Your task to perform on an android device: set default search engine in the chrome app Image 0: 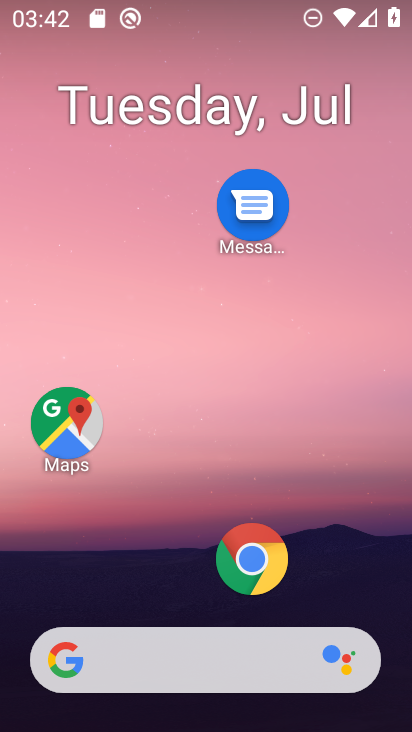
Step 0: click (253, 547)
Your task to perform on an android device: set default search engine in the chrome app Image 1: 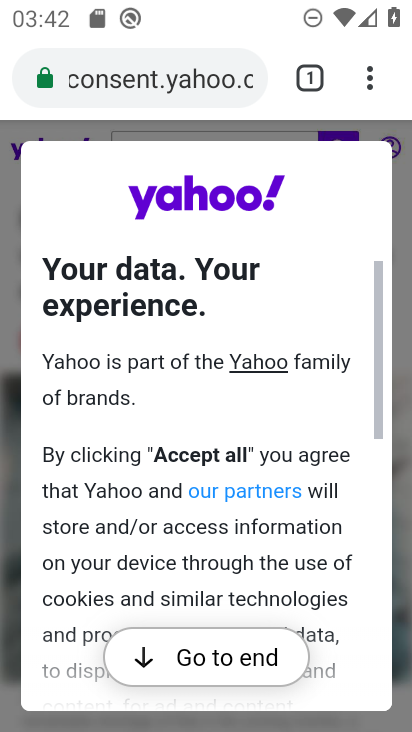
Step 1: click (363, 67)
Your task to perform on an android device: set default search engine in the chrome app Image 2: 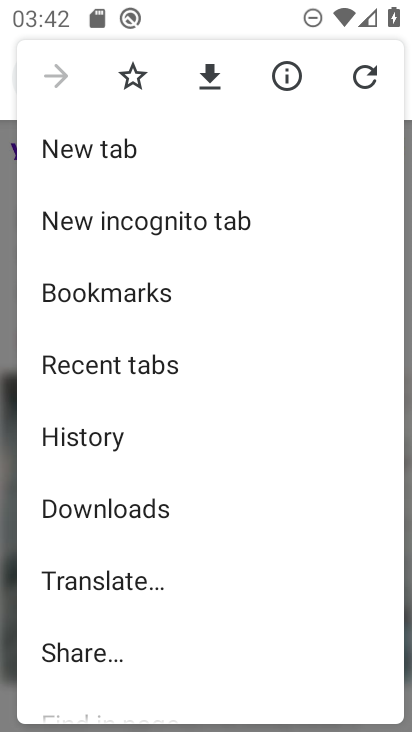
Step 2: drag from (195, 617) to (272, 50)
Your task to perform on an android device: set default search engine in the chrome app Image 3: 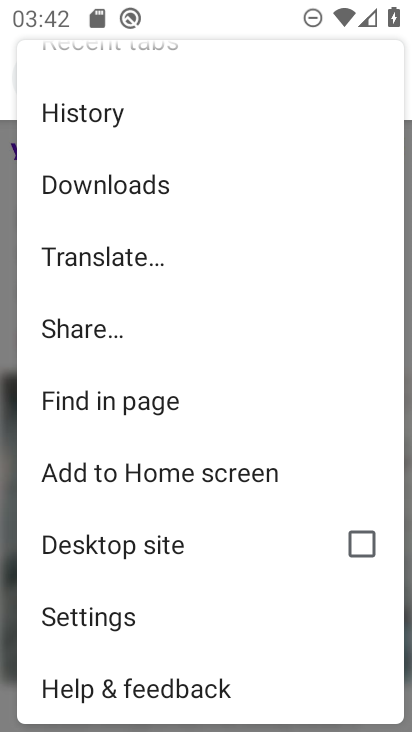
Step 3: click (105, 615)
Your task to perform on an android device: set default search engine in the chrome app Image 4: 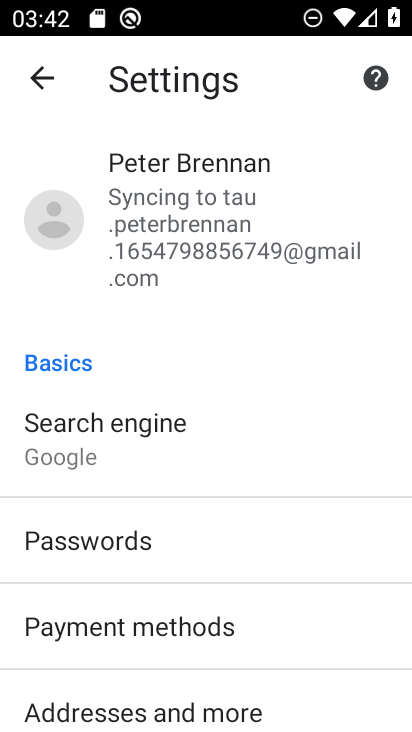
Step 4: click (91, 394)
Your task to perform on an android device: set default search engine in the chrome app Image 5: 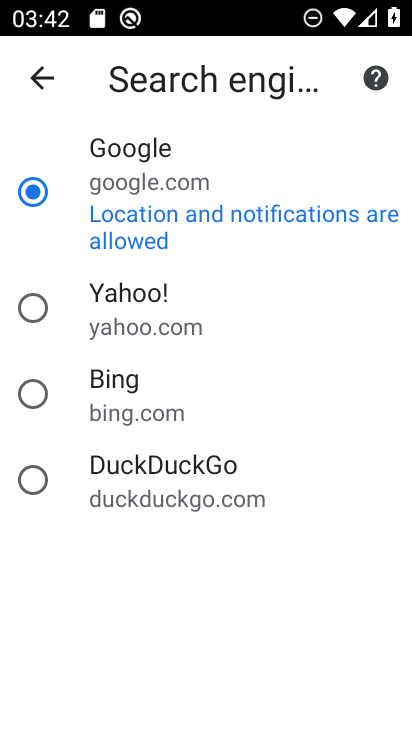
Step 5: click (96, 294)
Your task to perform on an android device: set default search engine in the chrome app Image 6: 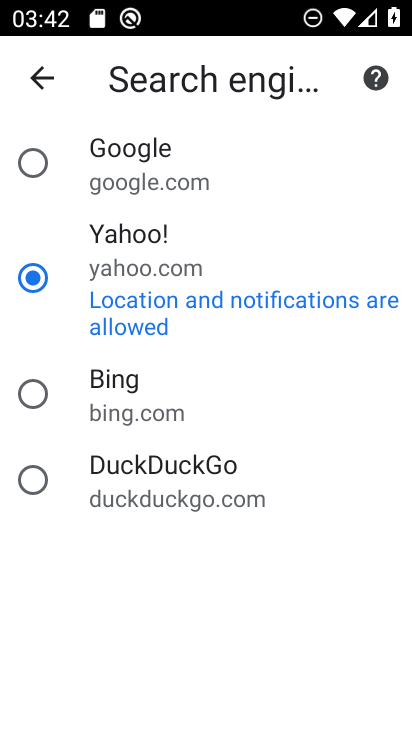
Step 6: task complete